Your task to perform on an android device: turn off airplane mode Image 0: 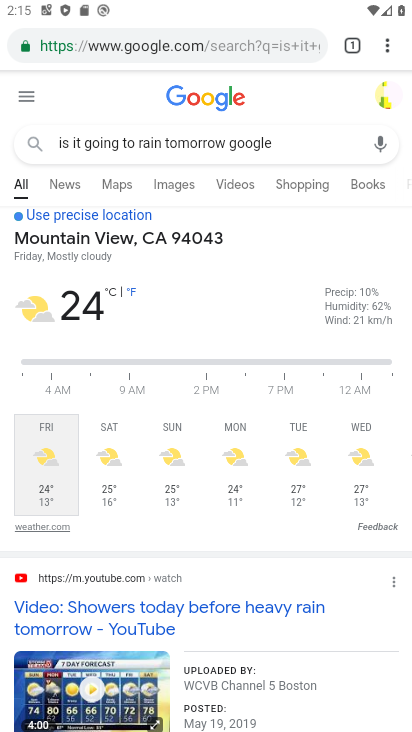
Step 0: press back button
Your task to perform on an android device: turn off airplane mode Image 1: 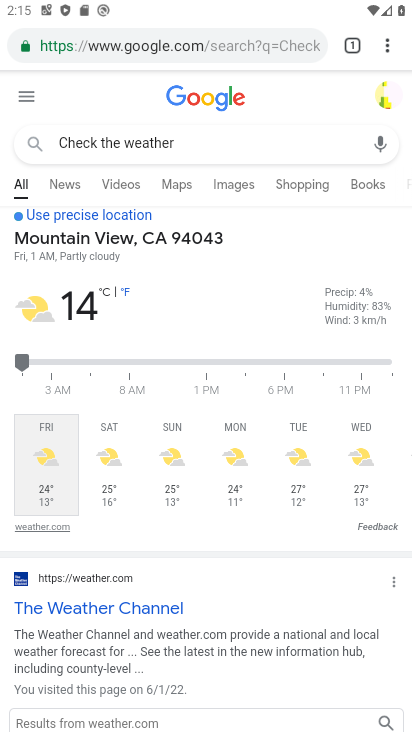
Step 1: press home button
Your task to perform on an android device: turn off airplane mode Image 2: 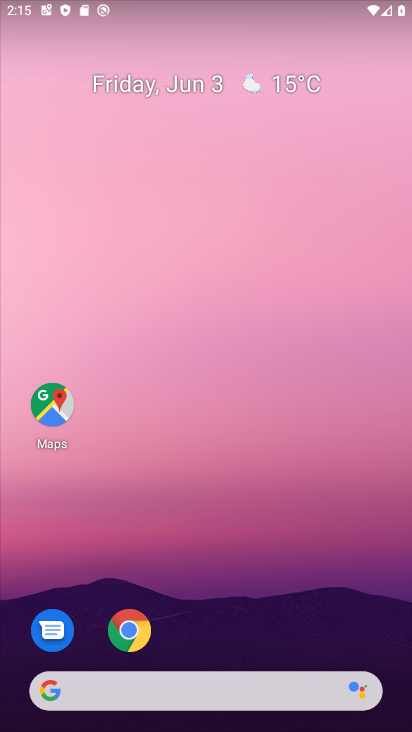
Step 2: drag from (230, 216) to (231, 33)
Your task to perform on an android device: turn off airplane mode Image 3: 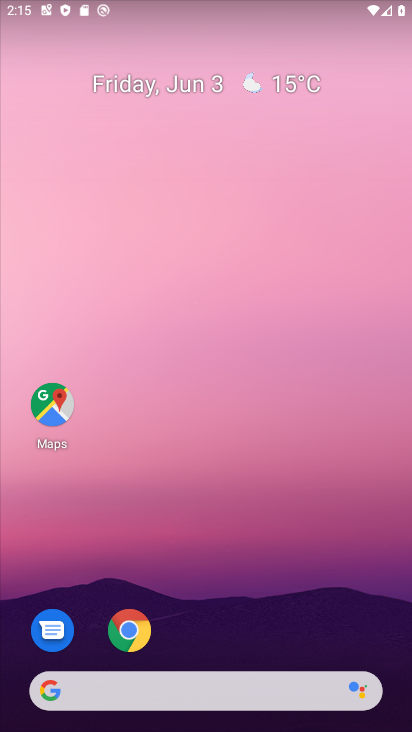
Step 3: drag from (247, 568) to (194, 48)
Your task to perform on an android device: turn off airplane mode Image 4: 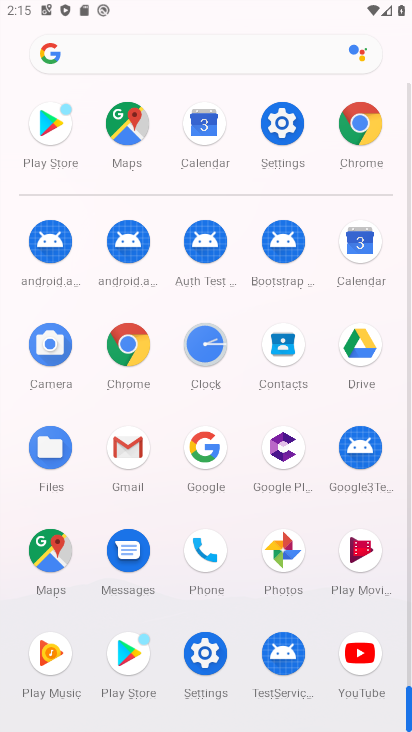
Step 4: click (282, 121)
Your task to perform on an android device: turn off airplane mode Image 5: 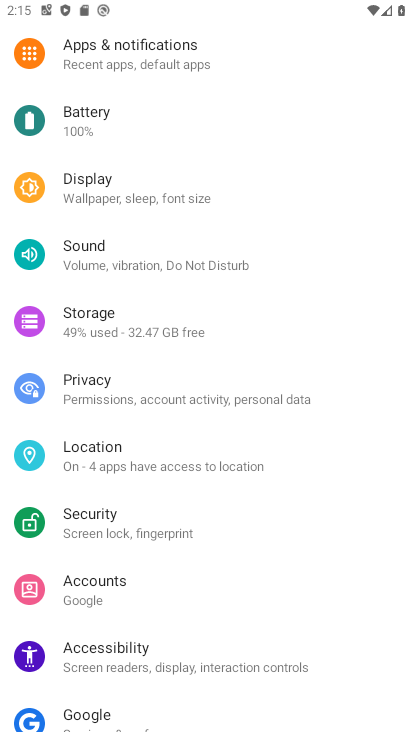
Step 5: drag from (274, 95) to (241, 455)
Your task to perform on an android device: turn off airplane mode Image 6: 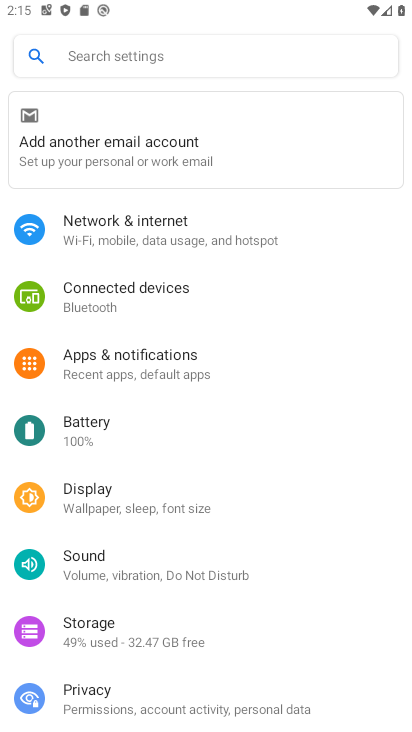
Step 6: click (204, 228)
Your task to perform on an android device: turn off airplane mode Image 7: 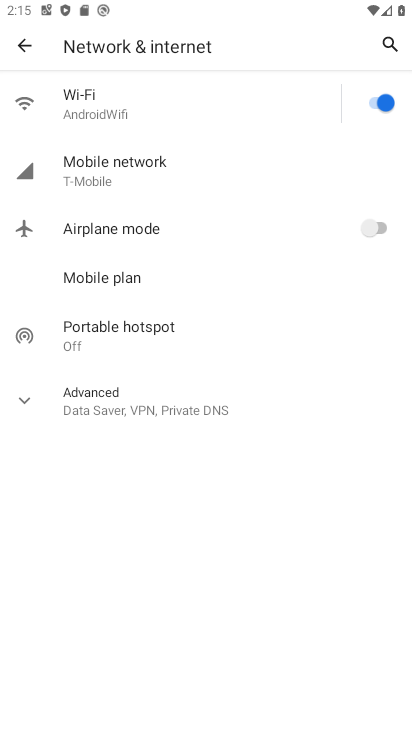
Step 7: click (31, 403)
Your task to perform on an android device: turn off airplane mode Image 8: 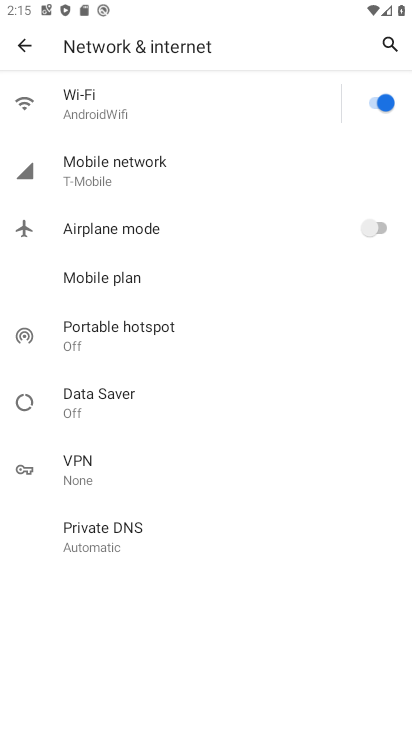
Step 8: task complete